Your task to perform on an android device: What's the weather? Image 0: 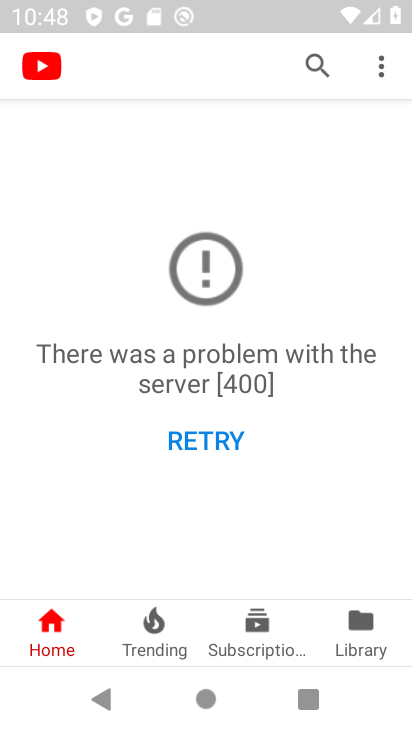
Step 0: press home button
Your task to perform on an android device: What's the weather? Image 1: 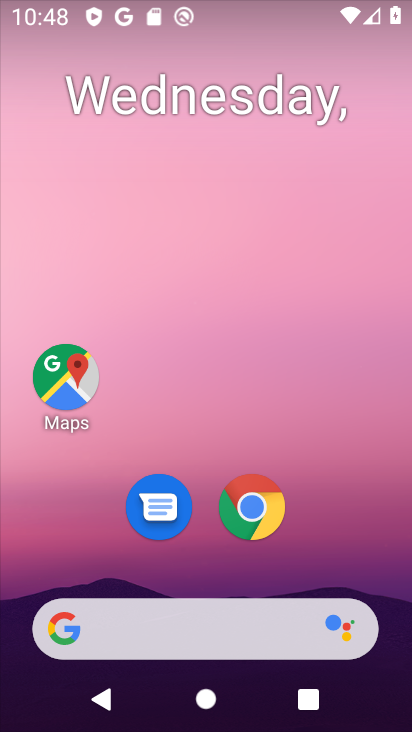
Step 1: drag from (220, 685) to (222, 1)
Your task to perform on an android device: What's the weather? Image 2: 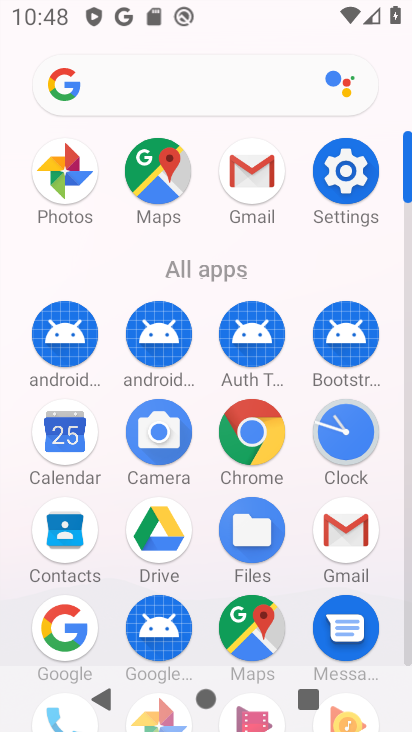
Step 2: click (74, 631)
Your task to perform on an android device: What's the weather? Image 3: 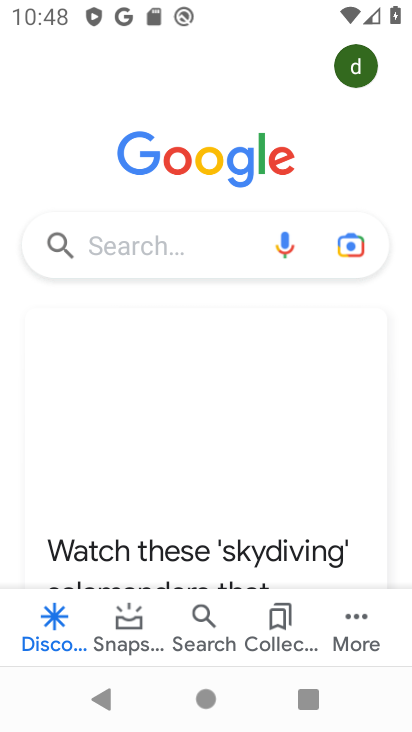
Step 3: click (163, 263)
Your task to perform on an android device: What's the weather? Image 4: 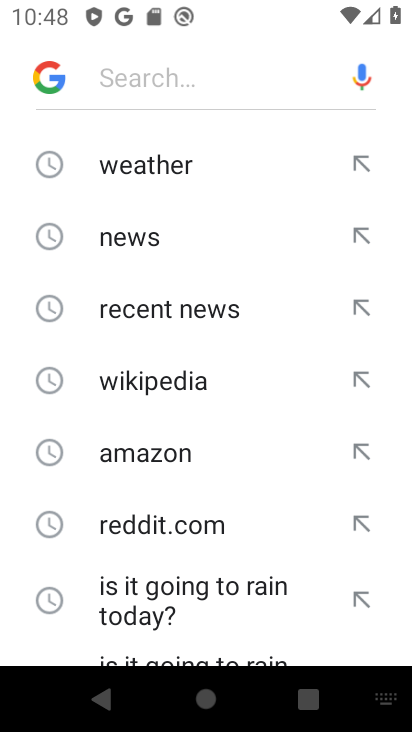
Step 4: click (143, 158)
Your task to perform on an android device: What's the weather? Image 5: 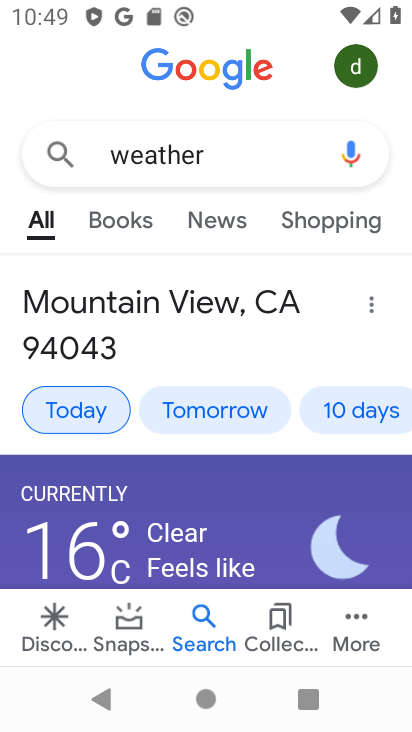
Step 5: click (71, 405)
Your task to perform on an android device: What's the weather? Image 6: 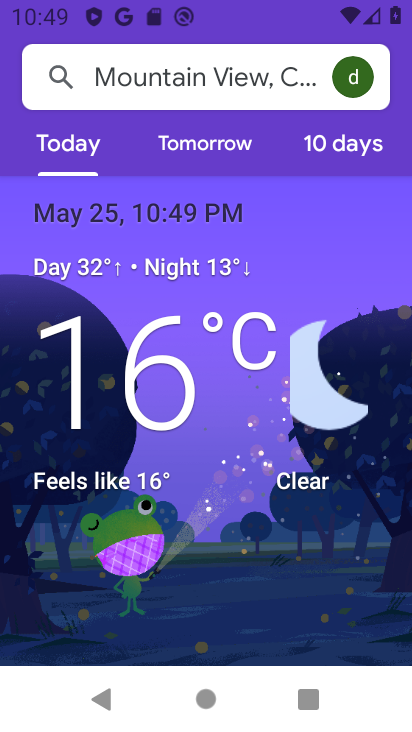
Step 6: task complete